Your task to perform on an android device: Open settings Image 0: 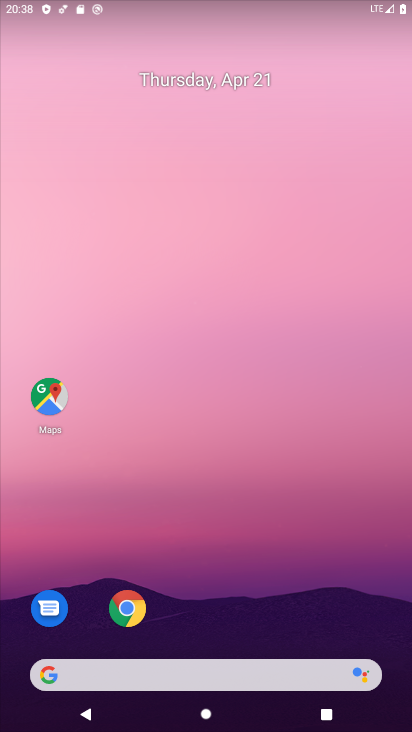
Step 0: drag from (240, 624) to (266, 271)
Your task to perform on an android device: Open settings Image 1: 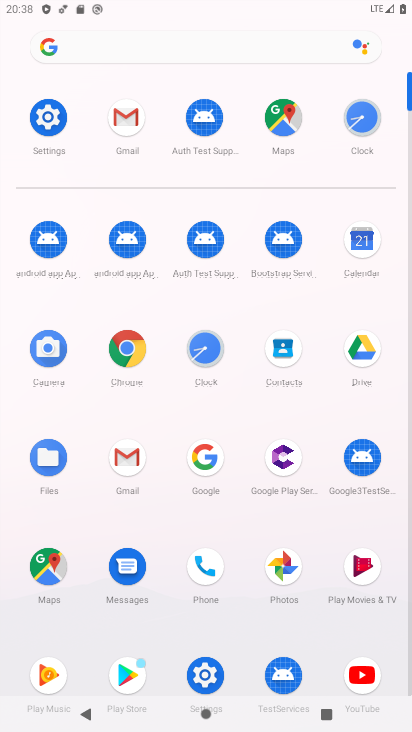
Step 1: click (40, 124)
Your task to perform on an android device: Open settings Image 2: 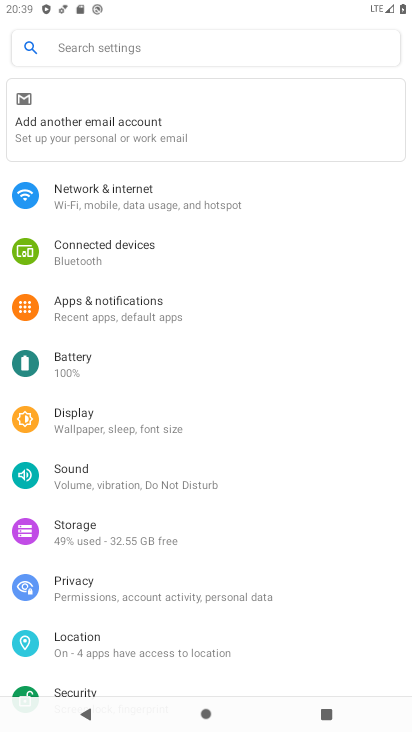
Step 2: task complete